Your task to perform on an android device: delete browsing data in the chrome app Image 0: 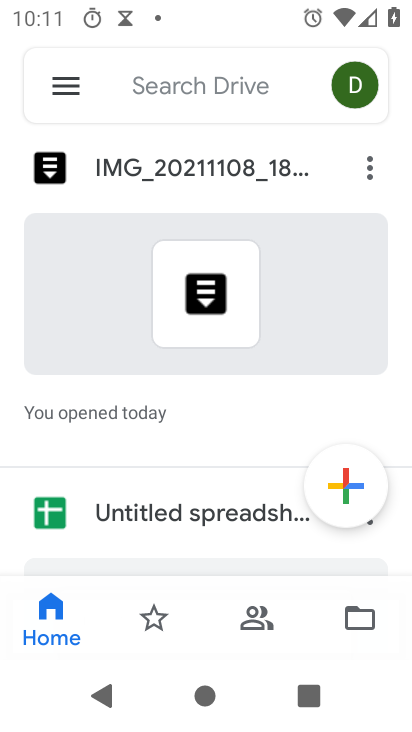
Step 0: press home button
Your task to perform on an android device: delete browsing data in the chrome app Image 1: 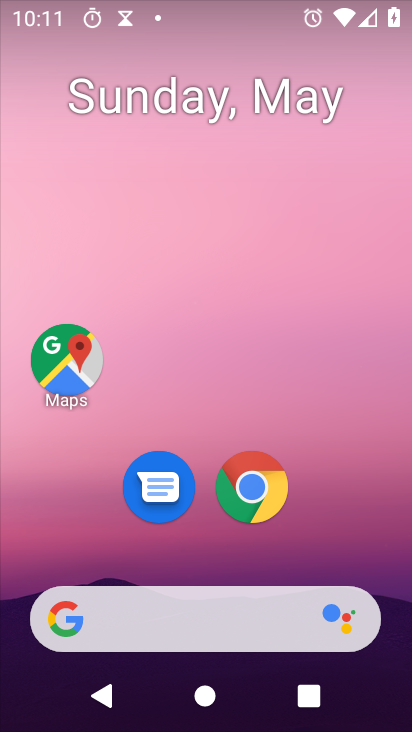
Step 1: drag from (345, 533) to (322, 77)
Your task to perform on an android device: delete browsing data in the chrome app Image 2: 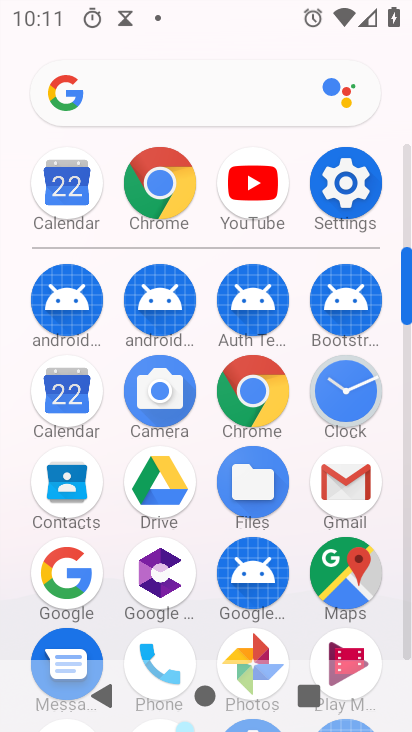
Step 2: click (161, 180)
Your task to perform on an android device: delete browsing data in the chrome app Image 3: 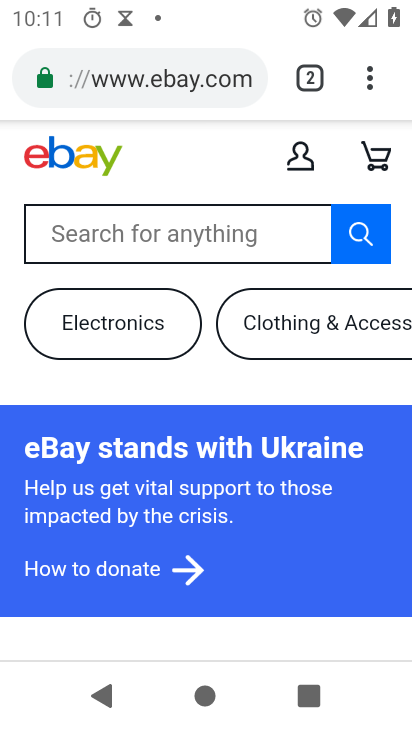
Step 3: drag from (369, 94) to (239, 451)
Your task to perform on an android device: delete browsing data in the chrome app Image 4: 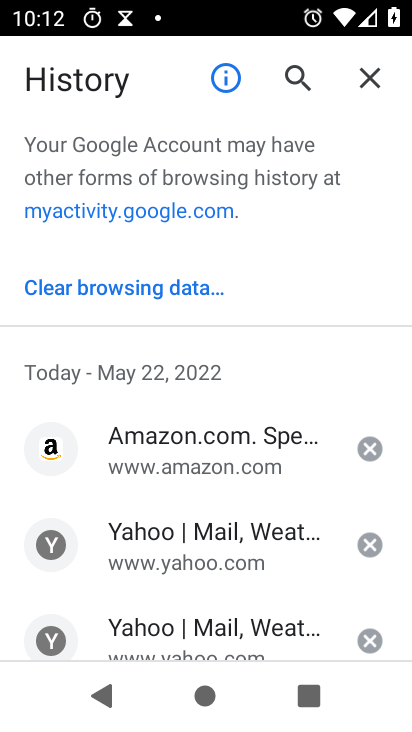
Step 4: click (150, 284)
Your task to perform on an android device: delete browsing data in the chrome app Image 5: 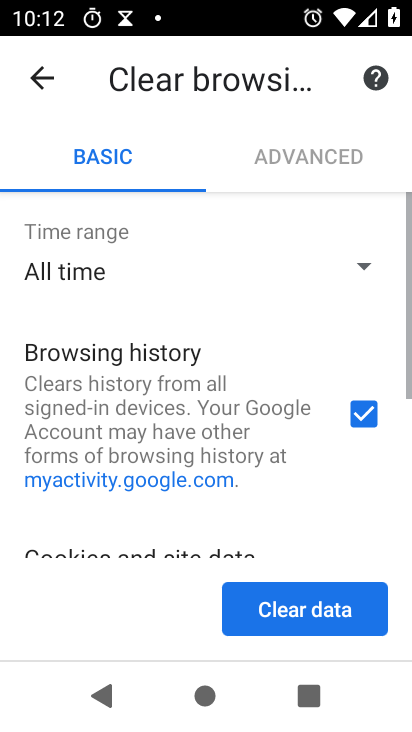
Step 5: click (325, 627)
Your task to perform on an android device: delete browsing data in the chrome app Image 6: 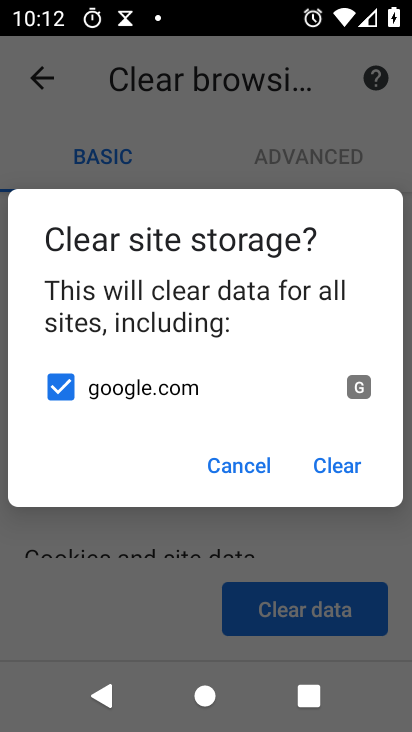
Step 6: click (329, 447)
Your task to perform on an android device: delete browsing data in the chrome app Image 7: 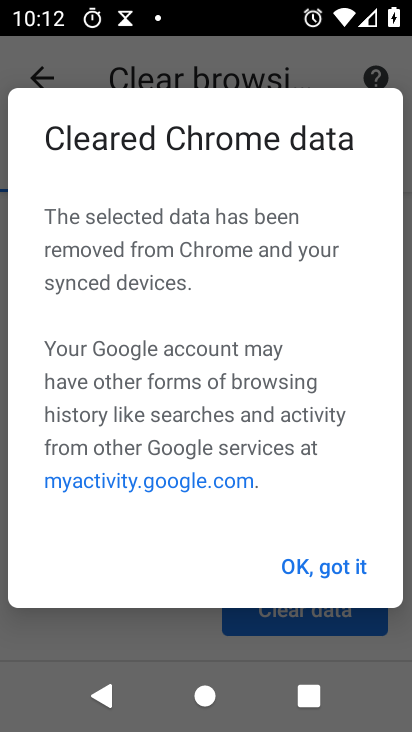
Step 7: click (339, 547)
Your task to perform on an android device: delete browsing data in the chrome app Image 8: 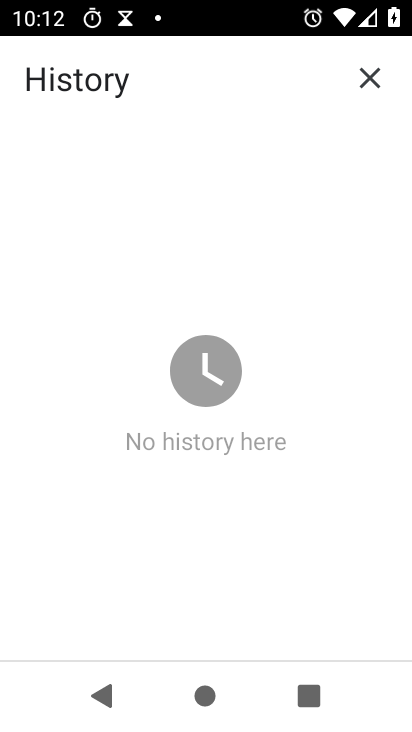
Step 8: task complete